Your task to perform on an android device: change notification settings in the gmail app Image 0: 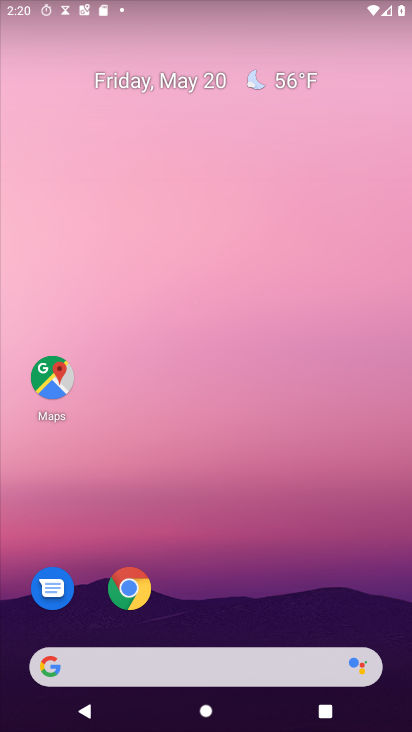
Step 0: drag from (77, 553) to (316, 120)
Your task to perform on an android device: change notification settings in the gmail app Image 1: 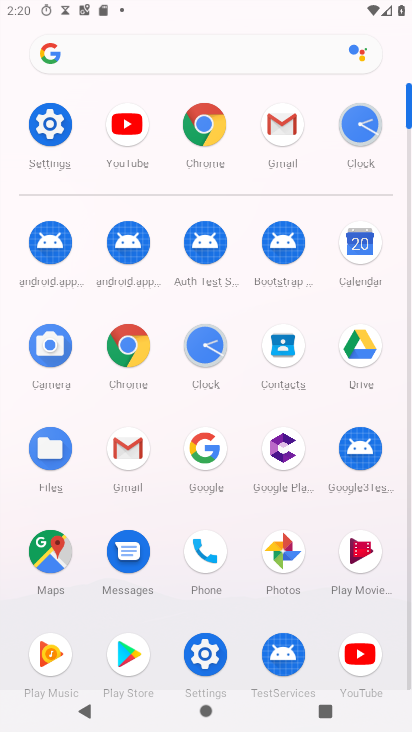
Step 1: click (63, 134)
Your task to perform on an android device: change notification settings in the gmail app Image 2: 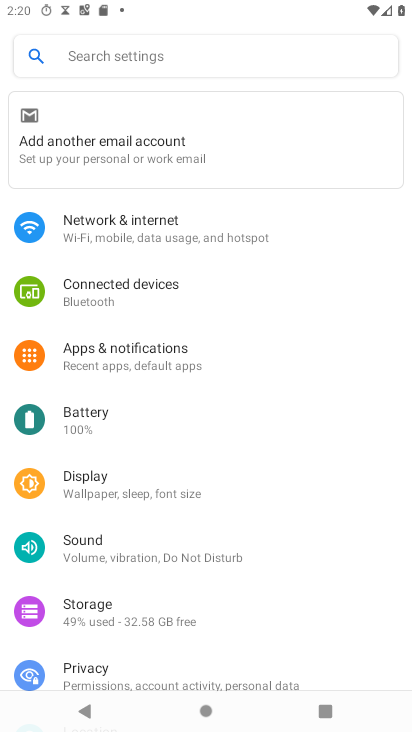
Step 2: click (145, 364)
Your task to perform on an android device: change notification settings in the gmail app Image 3: 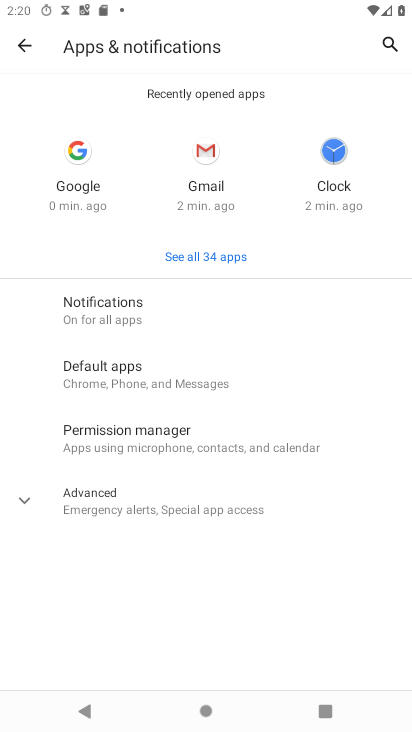
Step 3: click (148, 304)
Your task to perform on an android device: change notification settings in the gmail app Image 4: 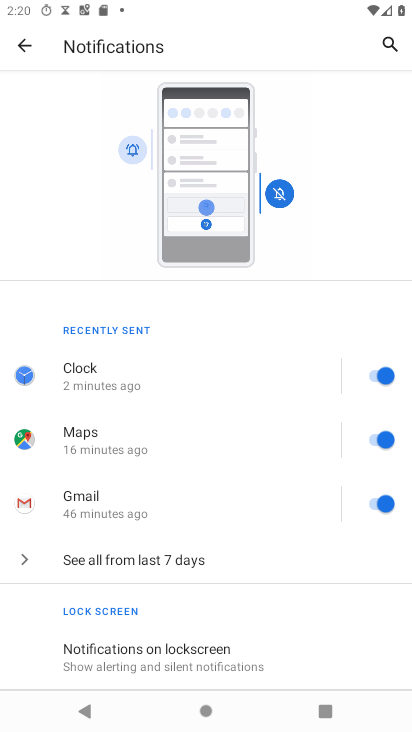
Step 4: drag from (101, 657) to (330, 124)
Your task to perform on an android device: change notification settings in the gmail app Image 5: 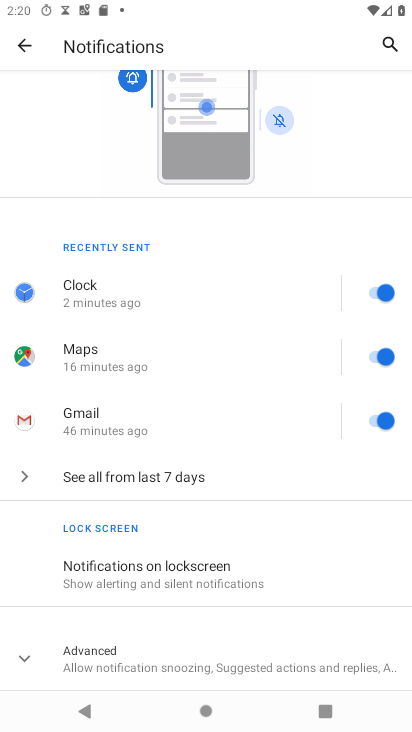
Step 5: drag from (265, 227) to (252, 699)
Your task to perform on an android device: change notification settings in the gmail app Image 6: 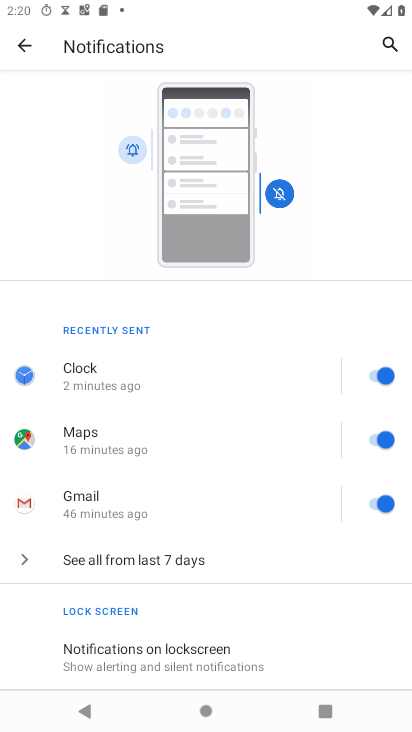
Step 6: click (26, 45)
Your task to perform on an android device: change notification settings in the gmail app Image 7: 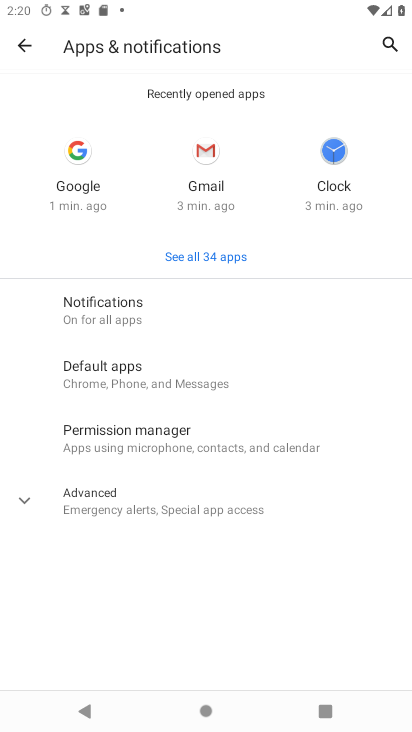
Step 7: click (195, 164)
Your task to perform on an android device: change notification settings in the gmail app Image 8: 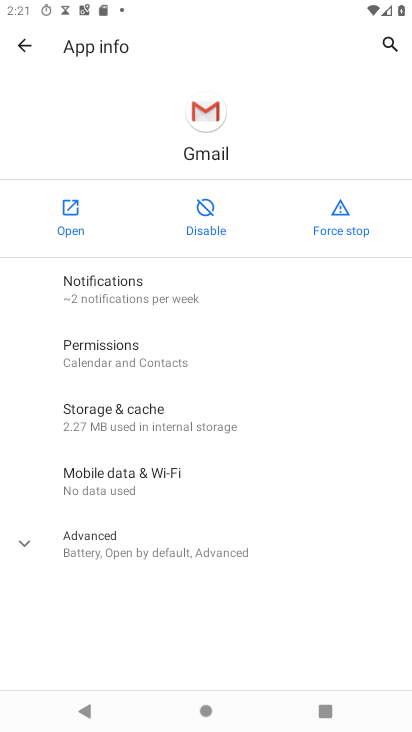
Step 8: click (198, 285)
Your task to perform on an android device: change notification settings in the gmail app Image 9: 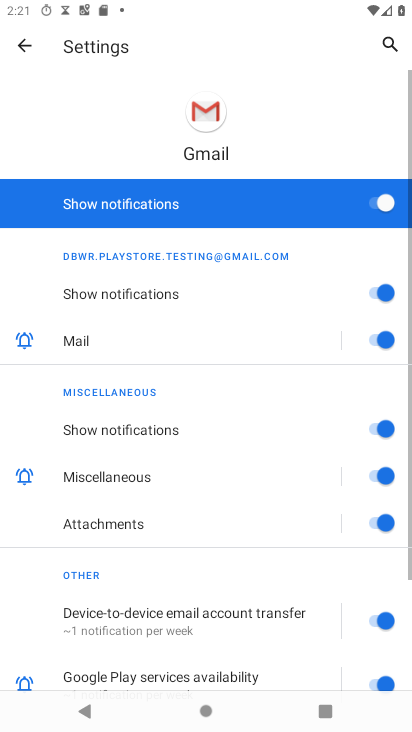
Step 9: click (387, 192)
Your task to perform on an android device: change notification settings in the gmail app Image 10: 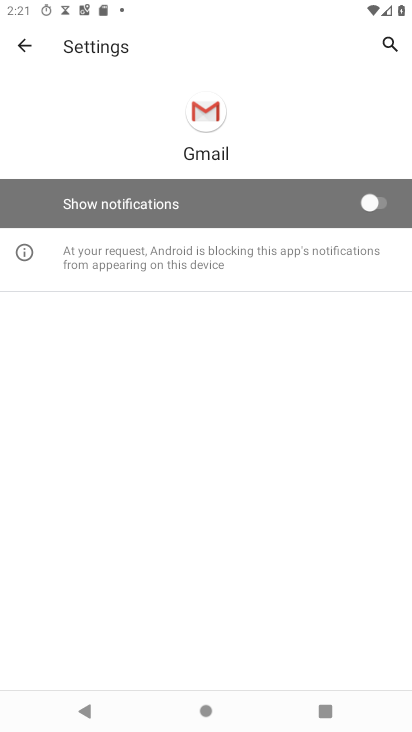
Step 10: task complete